Your task to perform on an android device: Open the web browser Image 0: 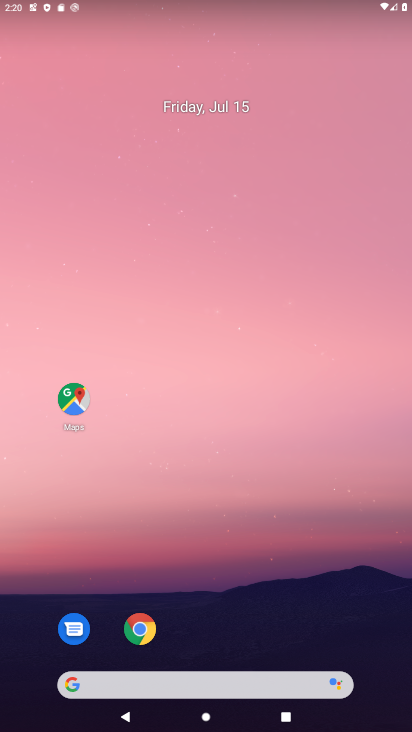
Step 0: drag from (221, 647) to (242, 174)
Your task to perform on an android device: Open the web browser Image 1: 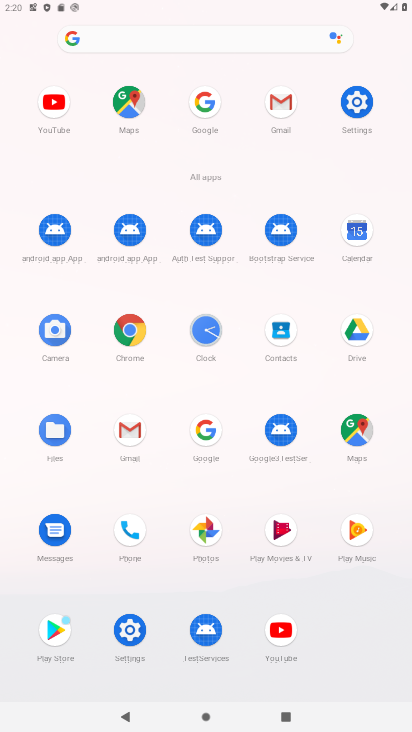
Step 1: click (207, 430)
Your task to perform on an android device: Open the web browser Image 2: 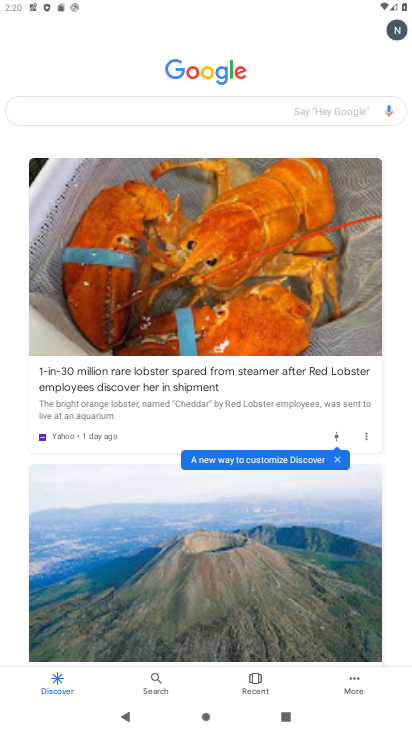
Step 2: task complete